Your task to perform on an android device: turn on priority inbox in the gmail app Image 0: 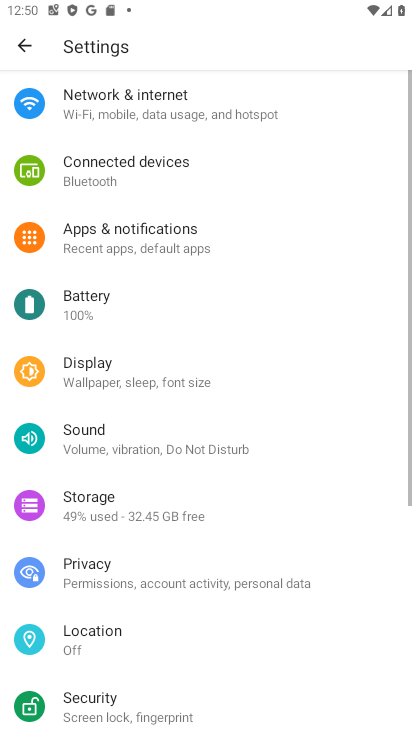
Step 0: press home button
Your task to perform on an android device: turn on priority inbox in the gmail app Image 1: 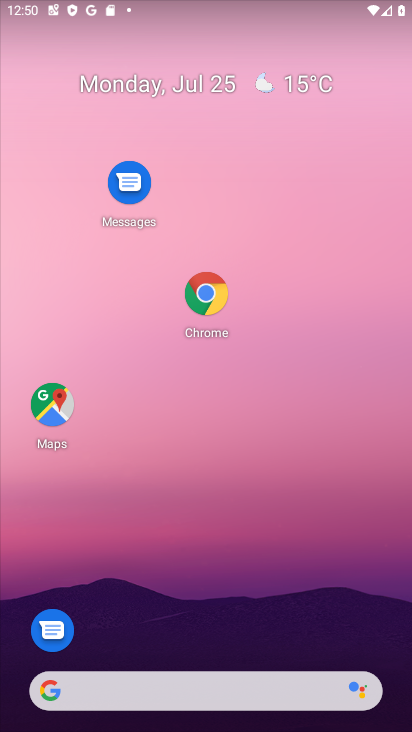
Step 1: drag from (295, 579) to (328, 155)
Your task to perform on an android device: turn on priority inbox in the gmail app Image 2: 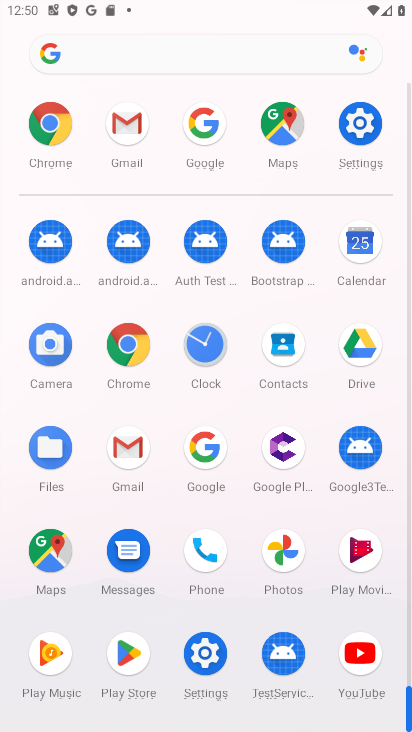
Step 2: click (131, 446)
Your task to perform on an android device: turn on priority inbox in the gmail app Image 3: 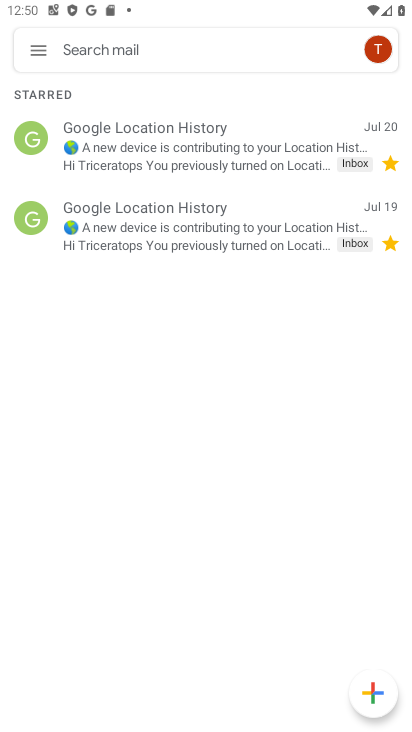
Step 3: click (44, 51)
Your task to perform on an android device: turn on priority inbox in the gmail app Image 4: 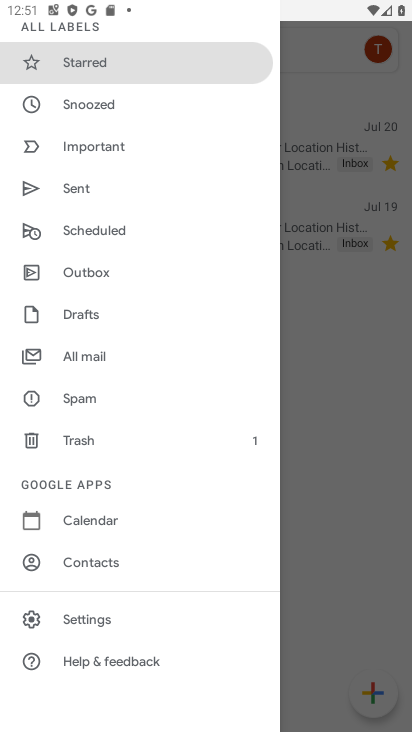
Step 4: click (91, 617)
Your task to perform on an android device: turn on priority inbox in the gmail app Image 5: 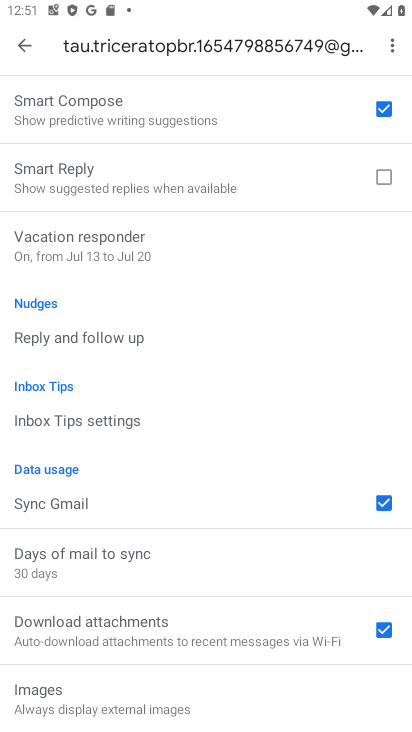
Step 5: drag from (169, 183) to (145, 615)
Your task to perform on an android device: turn on priority inbox in the gmail app Image 6: 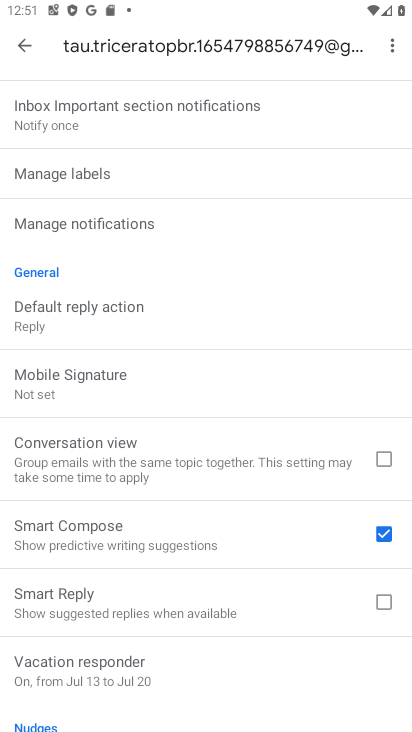
Step 6: drag from (87, 160) to (69, 533)
Your task to perform on an android device: turn on priority inbox in the gmail app Image 7: 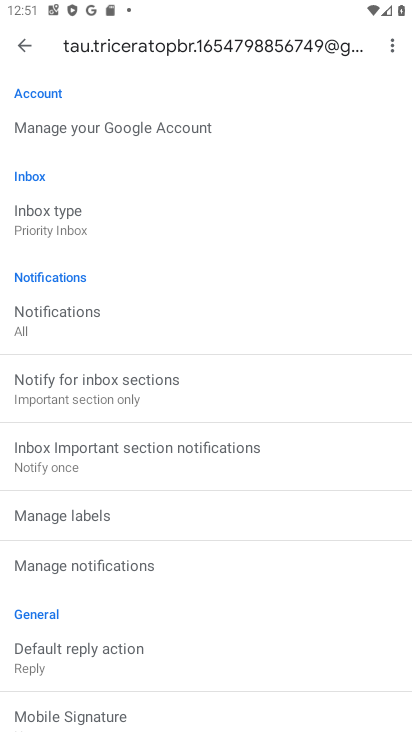
Step 7: click (48, 224)
Your task to perform on an android device: turn on priority inbox in the gmail app Image 8: 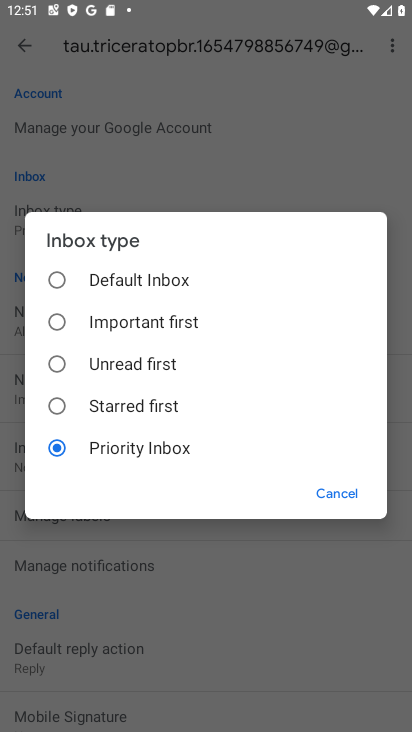
Step 8: task complete